Your task to perform on an android device: Check the news Image 0: 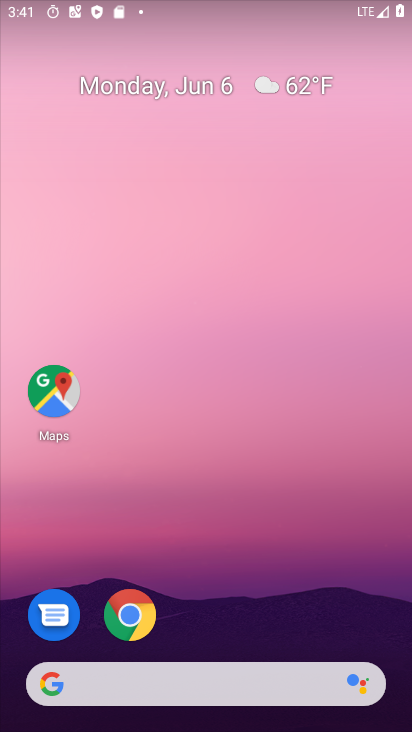
Step 0: drag from (277, 611) to (313, 18)
Your task to perform on an android device: Check the news Image 1: 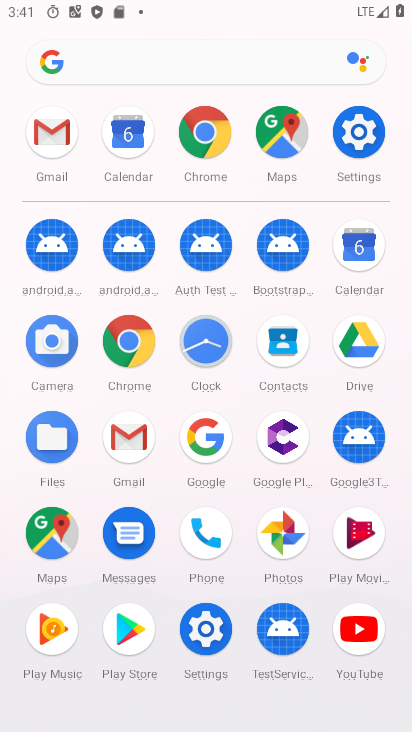
Step 1: click (126, 351)
Your task to perform on an android device: Check the news Image 2: 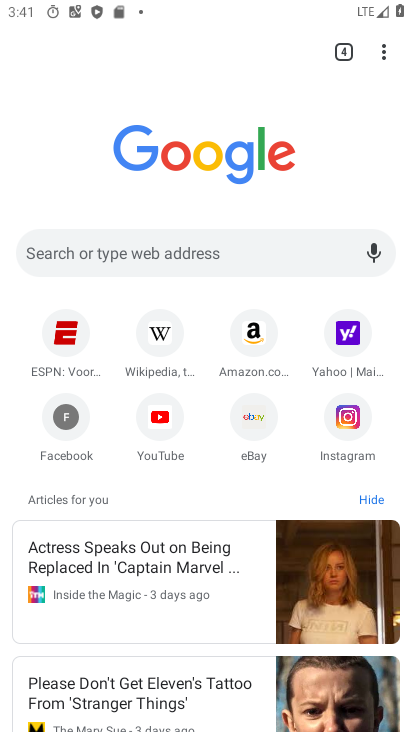
Step 2: click (200, 252)
Your task to perform on an android device: Check the news Image 3: 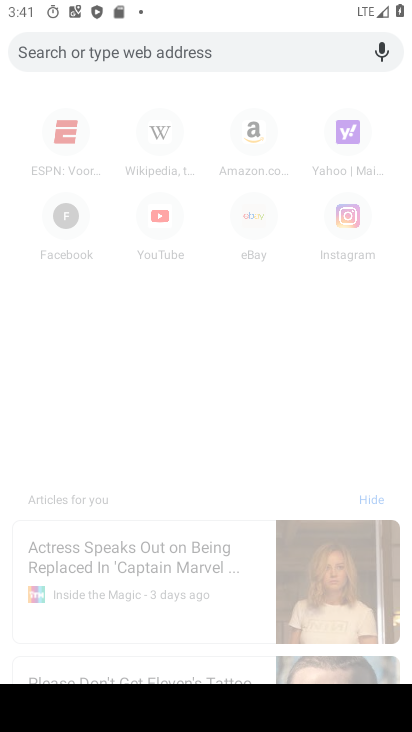
Step 3: type "check the news"
Your task to perform on an android device: Check the news Image 4: 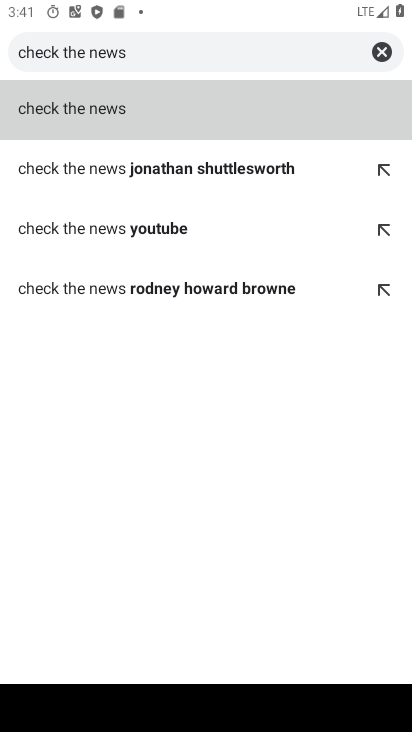
Step 4: click (183, 112)
Your task to perform on an android device: Check the news Image 5: 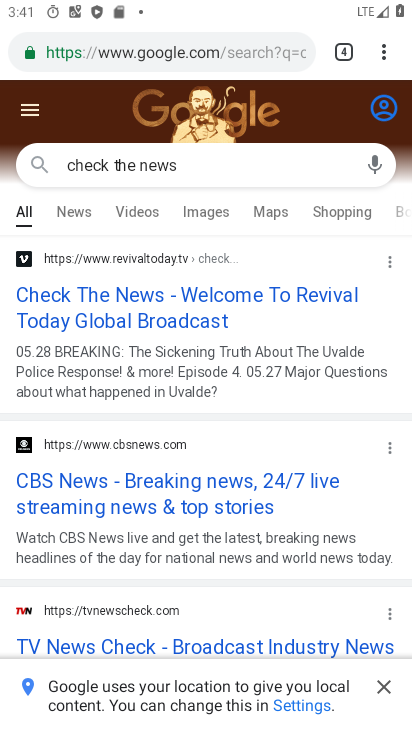
Step 5: task complete